Your task to perform on an android device: Go to eBay Image 0: 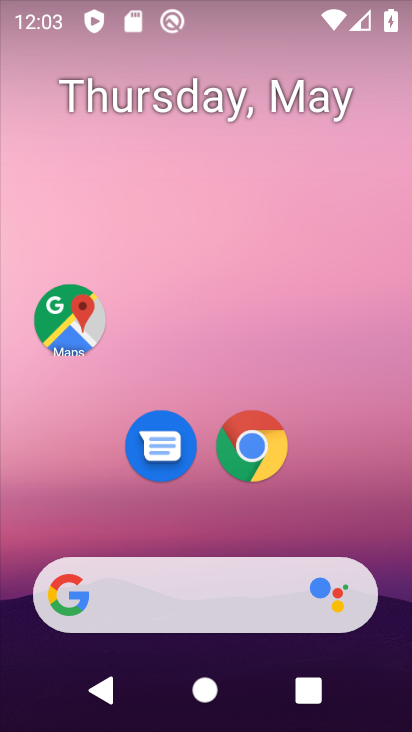
Step 0: press home button
Your task to perform on an android device: Go to eBay Image 1: 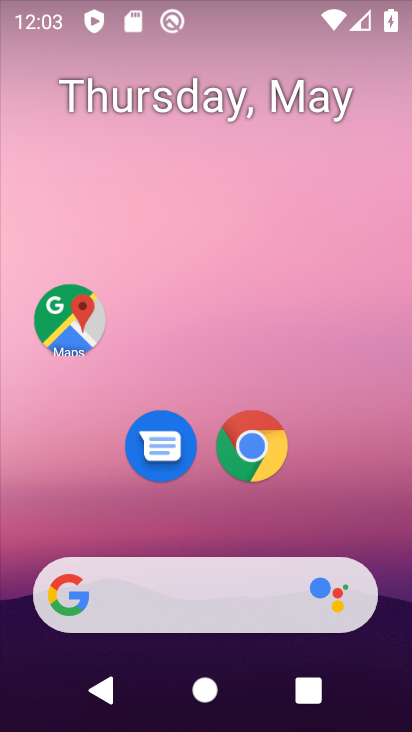
Step 1: click (269, 455)
Your task to perform on an android device: Go to eBay Image 2: 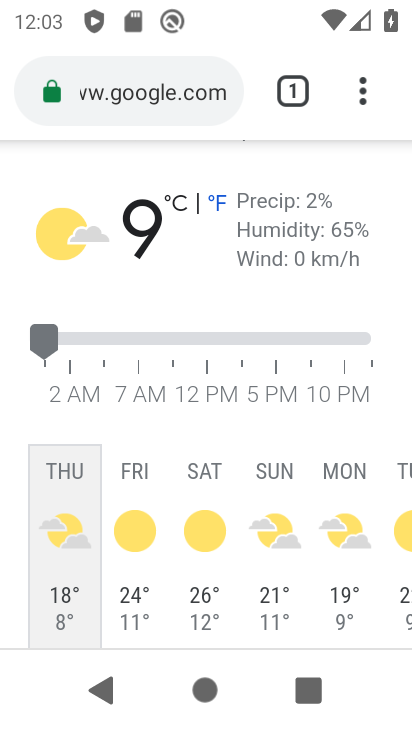
Step 2: click (143, 105)
Your task to perform on an android device: Go to eBay Image 3: 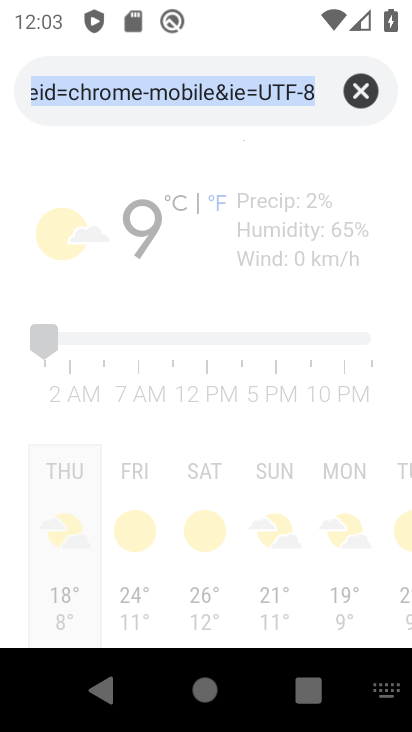
Step 3: click (365, 91)
Your task to perform on an android device: Go to eBay Image 4: 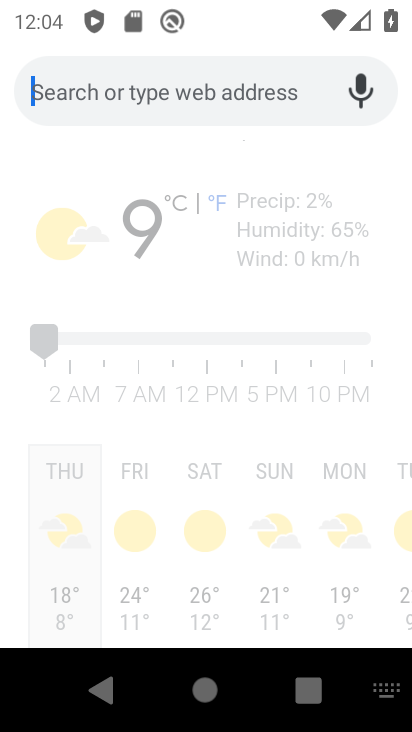
Step 4: type "eBay"
Your task to perform on an android device: Go to eBay Image 5: 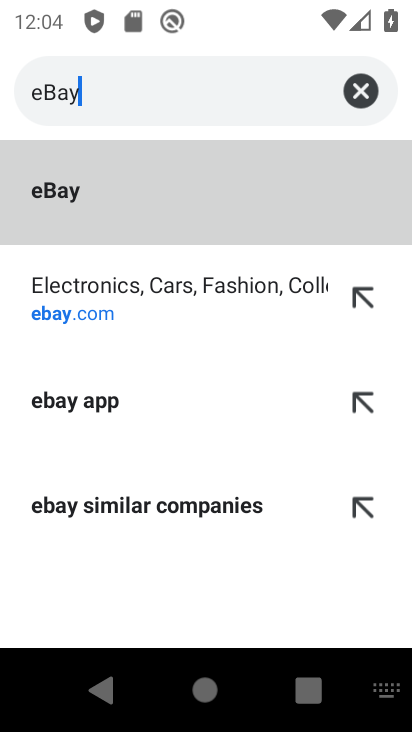
Step 5: click (238, 175)
Your task to perform on an android device: Go to eBay Image 6: 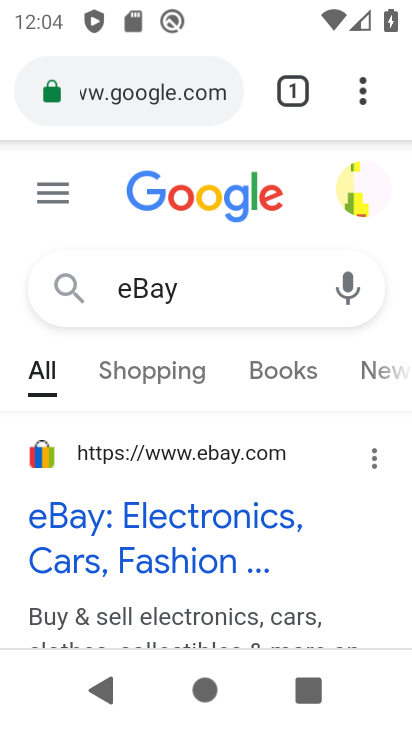
Step 6: click (232, 511)
Your task to perform on an android device: Go to eBay Image 7: 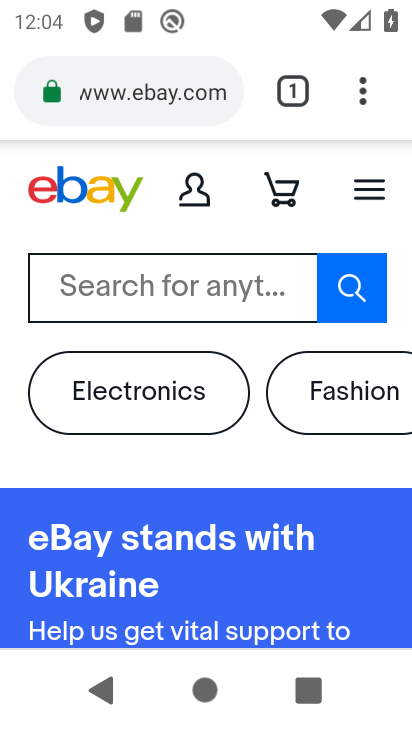
Step 7: task complete